Your task to perform on an android device: change the clock display to digital Image 0: 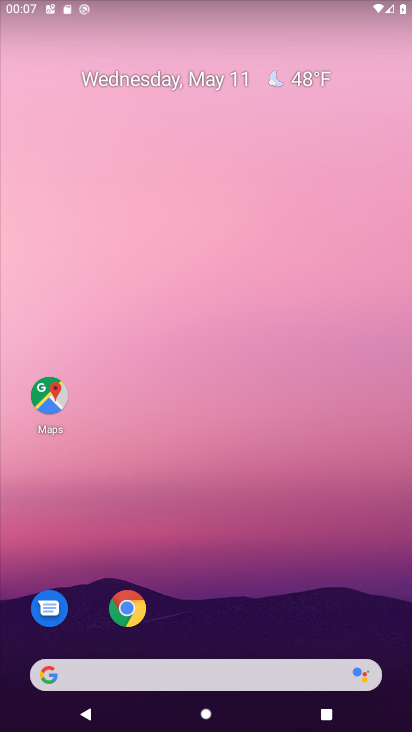
Step 0: drag from (295, 544) to (281, 279)
Your task to perform on an android device: change the clock display to digital Image 1: 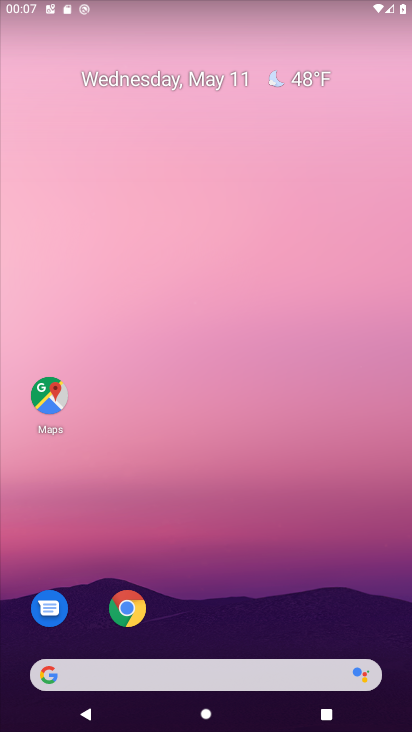
Step 1: click (281, 279)
Your task to perform on an android device: change the clock display to digital Image 2: 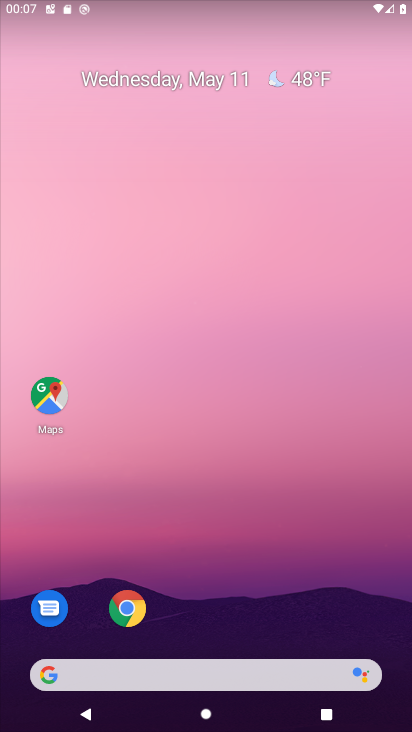
Step 2: drag from (250, 620) to (213, 151)
Your task to perform on an android device: change the clock display to digital Image 3: 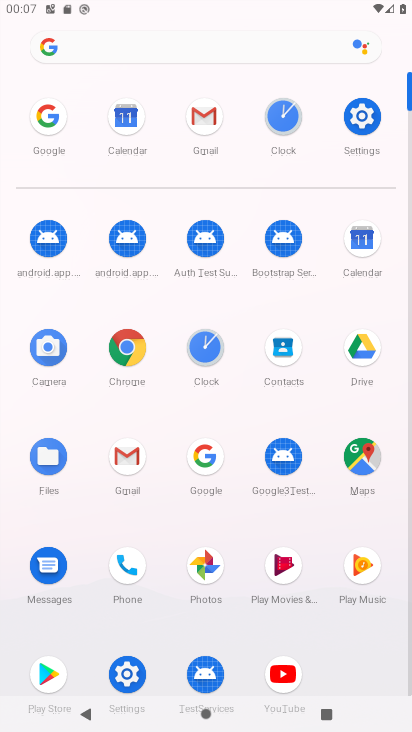
Step 3: click (205, 345)
Your task to perform on an android device: change the clock display to digital Image 4: 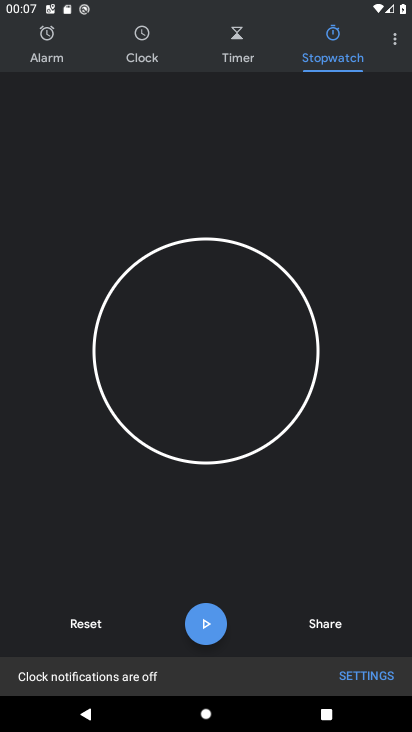
Step 4: click (395, 39)
Your task to perform on an android device: change the clock display to digital Image 5: 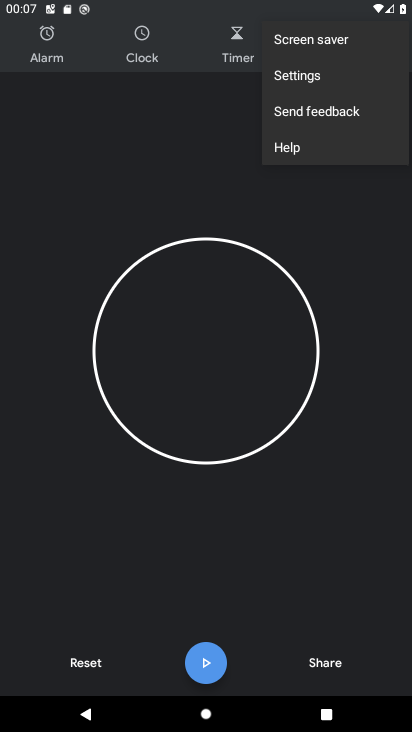
Step 5: click (316, 83)
Your task to perform on an android device: change the clock display to digital Image 6: 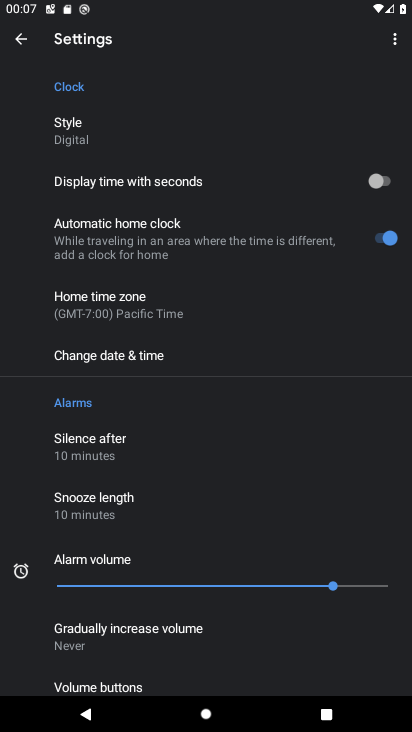
Step 6: task complete